Your task to perform on an android device: turn off location history Image 0: 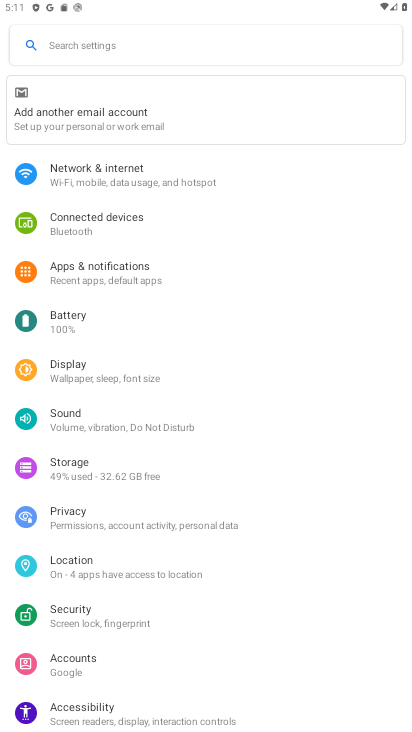
Step 0: press home button
Your task to perform on an android device: turn off location history Image 1: 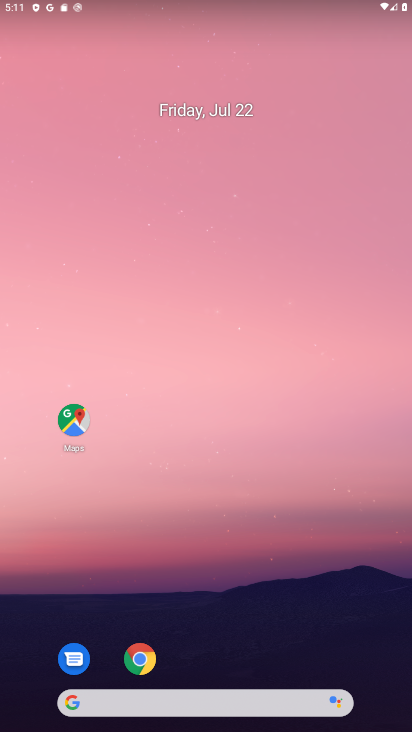
Step 1: drag from (226, 665) to (290, 84)
Your task to perform on an android device: turn off location history Image 2: 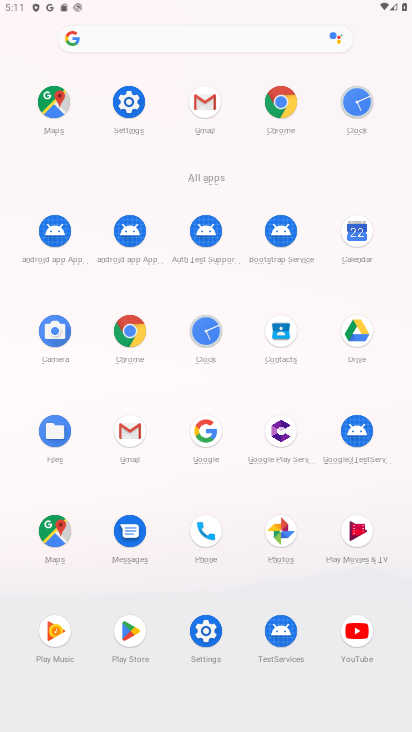
Step 2: click (206, 631)
Your task to perform on an android device: turn off location history Image 3: 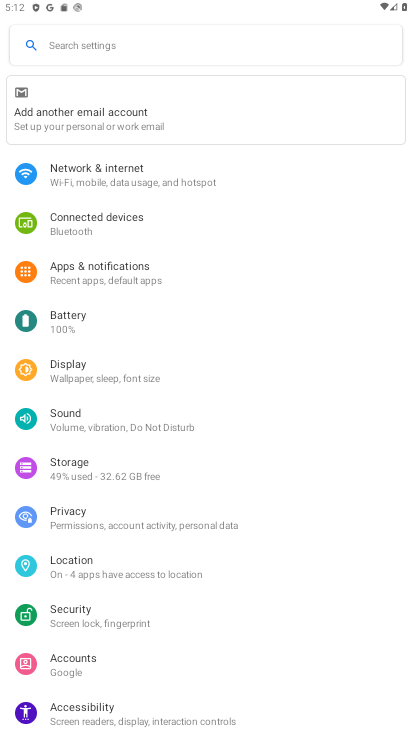
Step 3: click (100, 561)
Your task to perform on an android device: turn off location history Image 4: 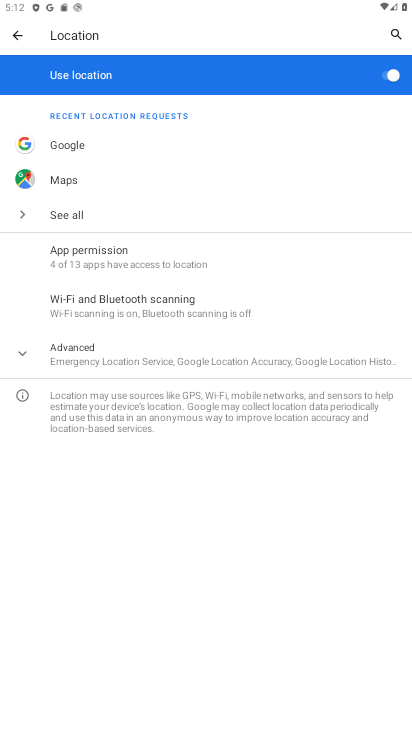
Step 4: click (58, 350)
Your task to perform on an android device: turn off location history Image 5: 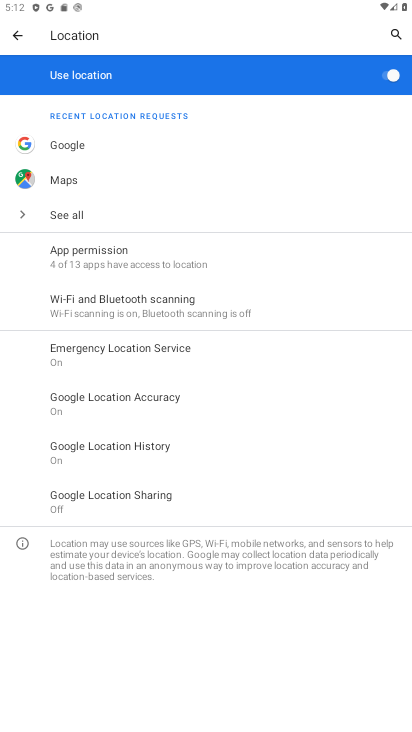
Step 5: click (132, 441)
Your task to perform on an android device: turn off location history Image 6: 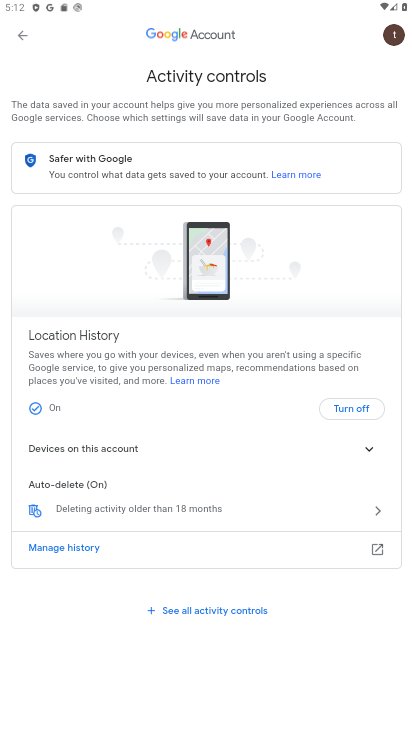
Step 6: click (354, 402)
Your task to perform on an android device: turn off location history Image 7: 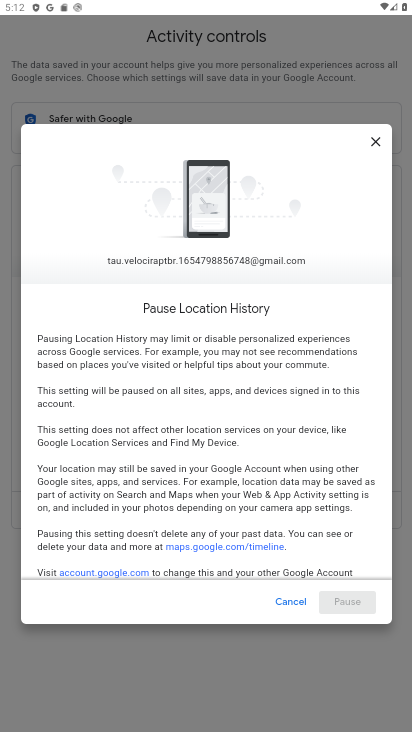
Step 7: drag from (335, 513) to (385, 148)
Your task to perform on an android device: turn off location history Image 8: 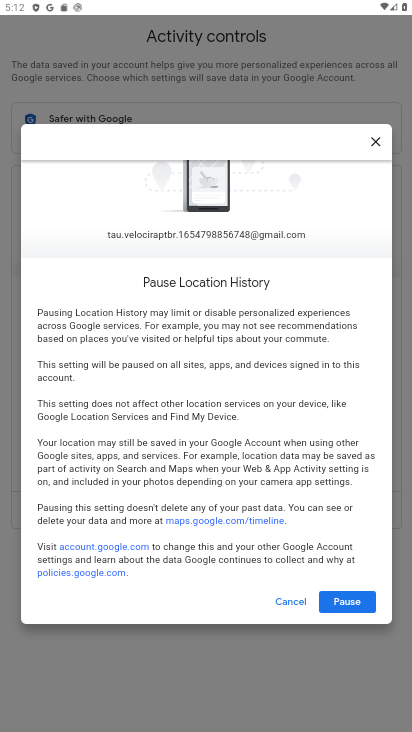
Step 8: click (344, 605)
Your task to perform on an android device: turn off location history Image 9: 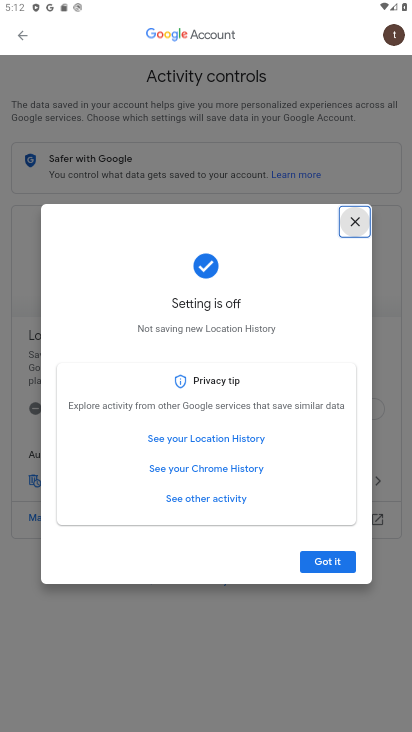
Step 9: click (328, 556)
Your task to perform on an android device: turn off location history Image 10: 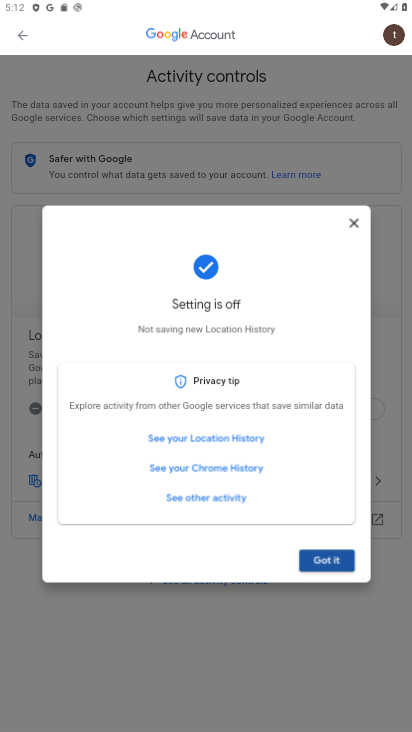
Step 10: task complete